Your task to perform on an android device: Go to internet settings Image 0: 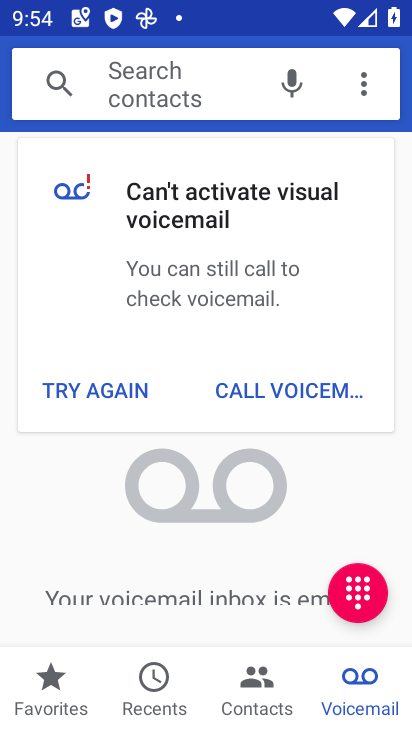
Step 0: press home button
Your task to perform on an android device: Go to internet settings Image 1: 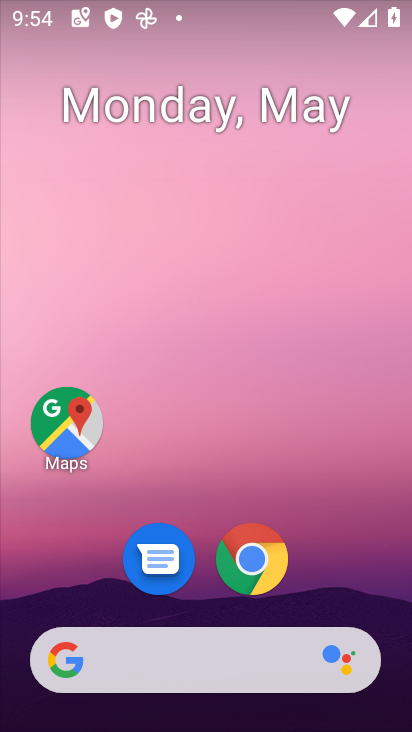
Step 1: drag from (316, 540) to (210, 204)
Your task to perform on an android device: Go to internet settings Image 2: 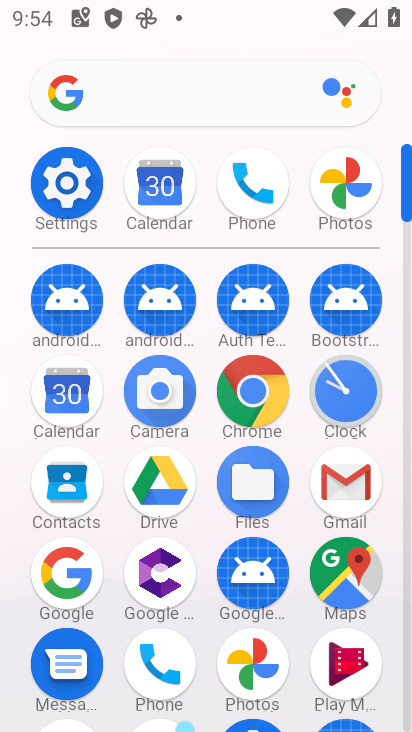
Step 2: click (72, 184)
Your task to perform on an android device: Go to internet settings Image 3: 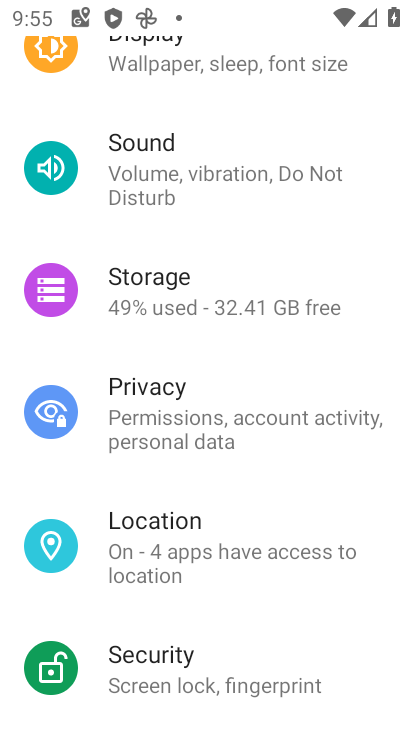
Step 3: drag from (160, 120) to (200, 714)
Your task to perform on an android device: Go to internet settings Image 4: 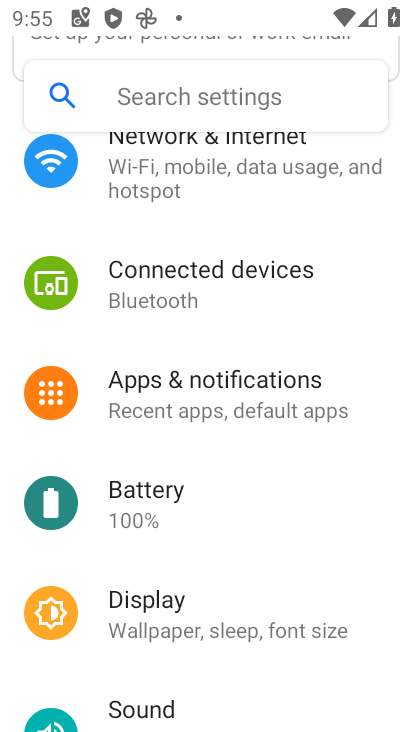
Step 4: drag from (228, 204) to (246, 710)
Your task to perform on an android device: Go to internet settings Image 5: 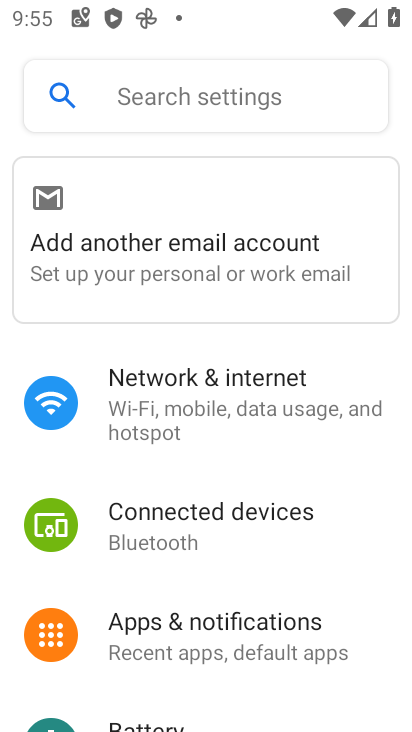
Step 5: click (191, 410)
Your task to perform on an android device: Go to internet settings Image 6: 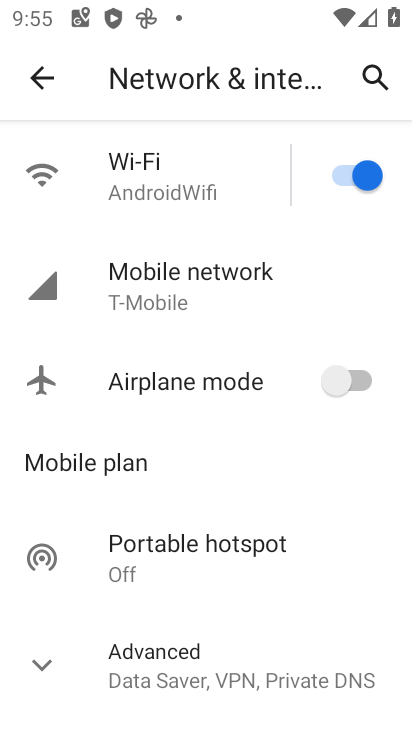
Step 6: task complete